Your task to perform on an android device: Open internet settings Image 0: 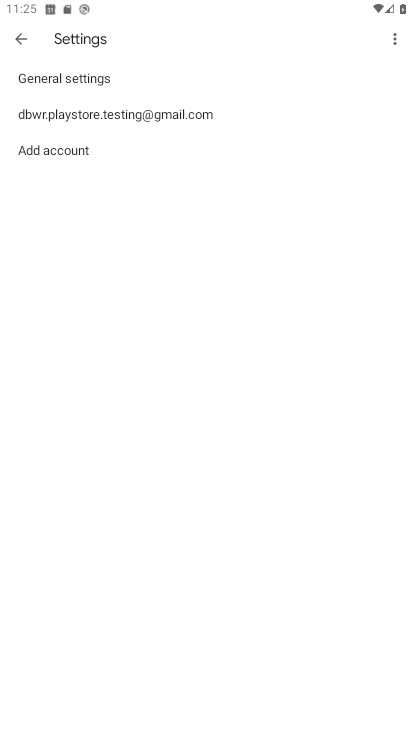
Step 0: press home button
Your task to perform on an android device: Open internet settings Image 1: 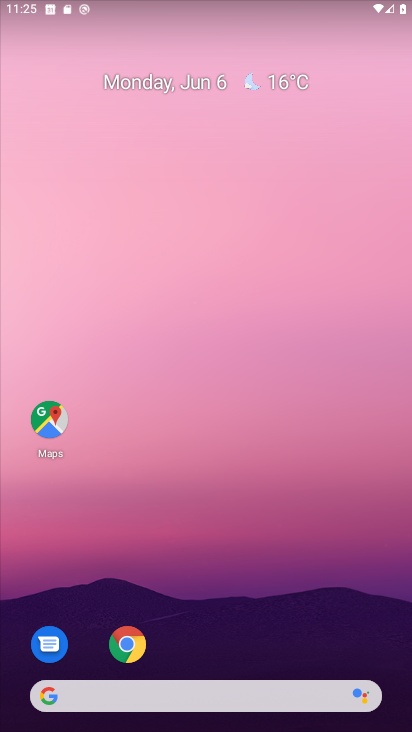
Step 1: drag from (167, 673) to (236, 301)
Your task to perform on an android device: Open internet settings Image 2: 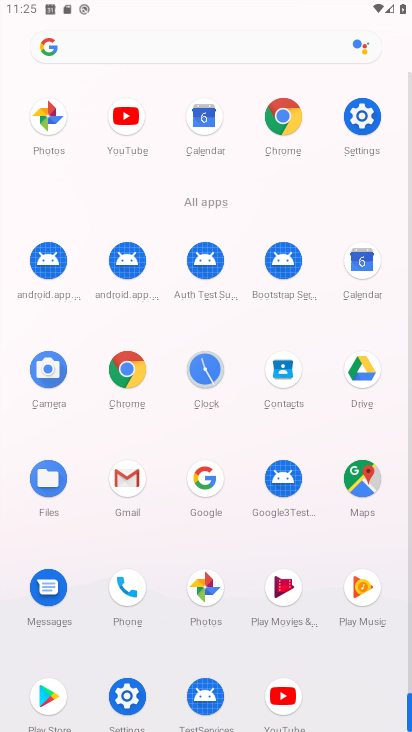
Step 2: click (131, 701)
Your task to perform on an android device: Open internet settings Image 3: 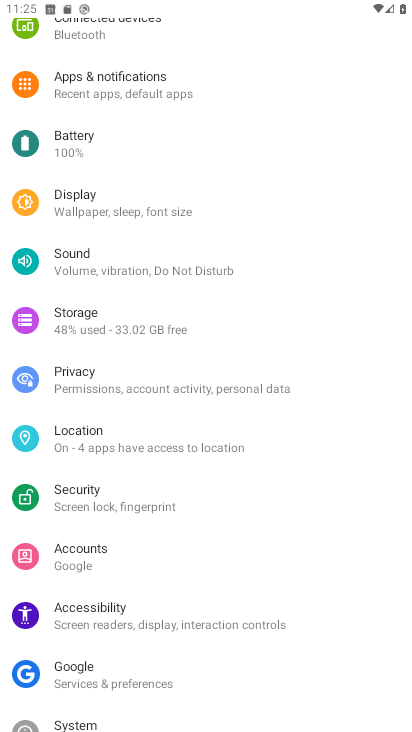
Step 3: drag from (193, 172) to (133, 494)
Your task to perform on an android device: Open internet settings Image 4: 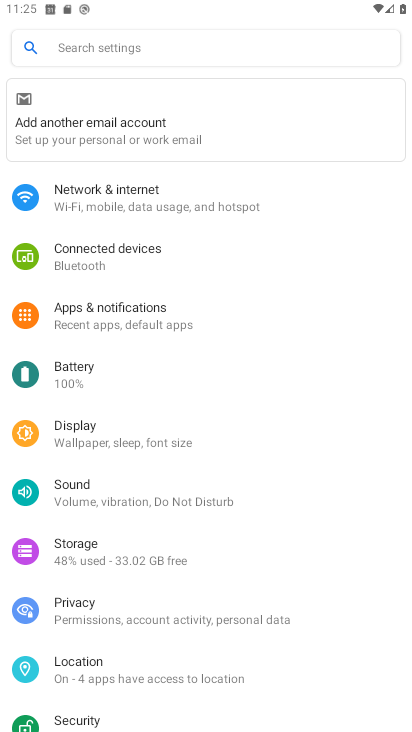
Step 4: click (182, 200)
Your task to perform on an android device: Open internet settings Image 5: 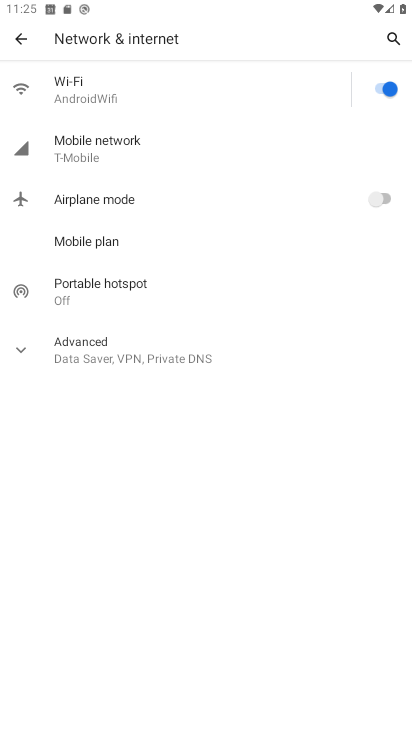
Step 5: click (153, 164)
Your task to perform on an android device: Open internet settings Image 6: 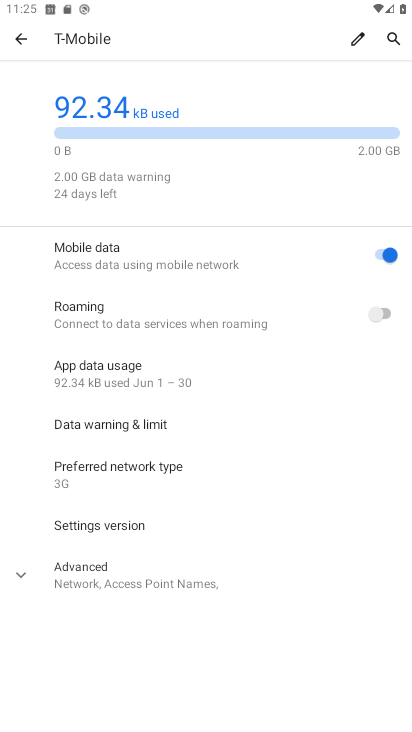
Step 6: task complete